Your task to perform on an android device: Open Android settings Image 0: 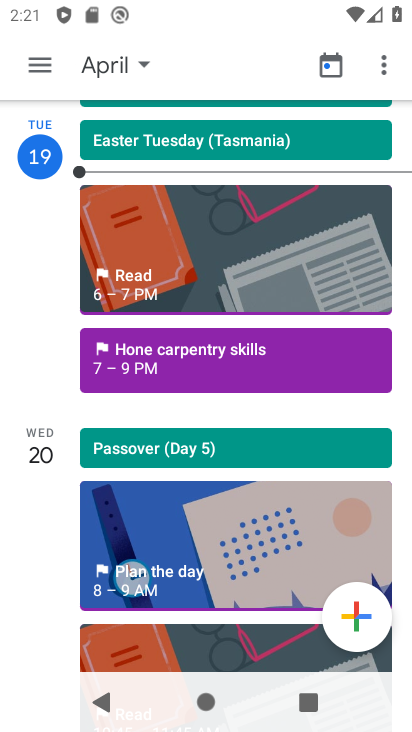
Step 0: press home button
Your task to perform on an android device: Open Android settings Image 1: 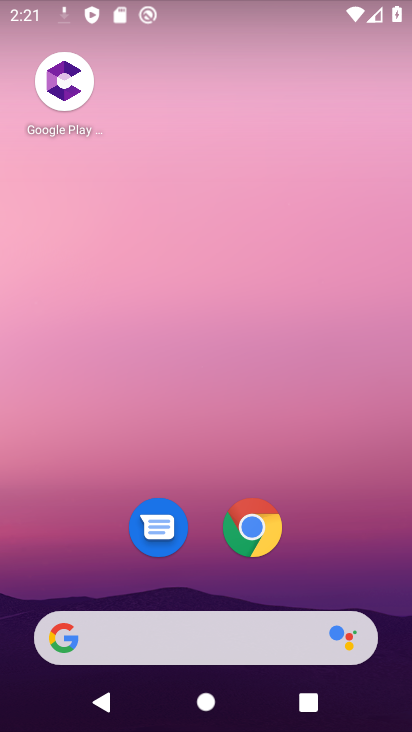
Step 1: drag from (306, 537) to (266, 40)
Your task to perform on an android device: Open Android settings Image 2: 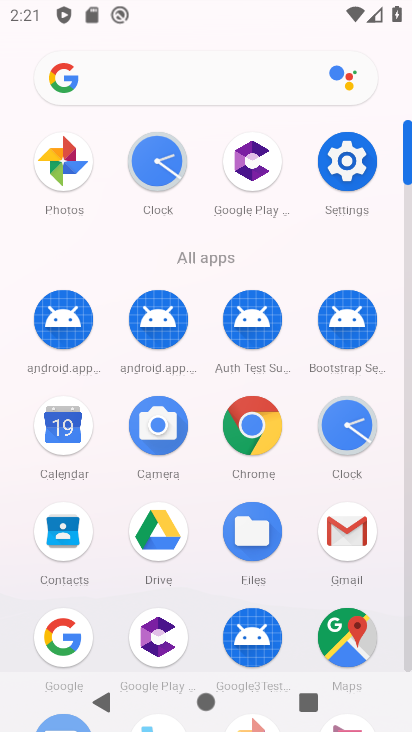
Step 2: click (353, 162)
Your task to perform on an android device: Open Android settings Image 3: 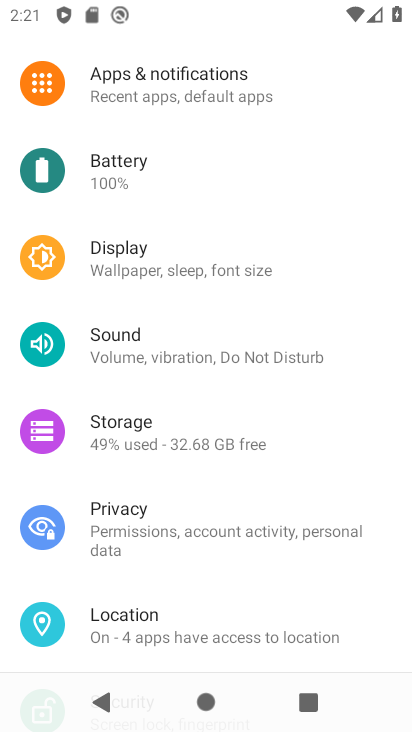
Step 3: drag from (190, 630) to (255, 473)
Your task to perform on an android device: Open Android settings Image 4: 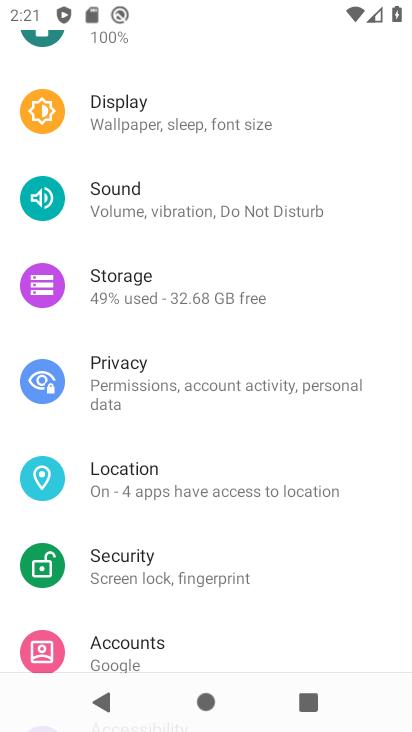
Step 4: drag from (184, 626) to (201, 465)
Your task to perform on an android device: Open Android settings Image 5: 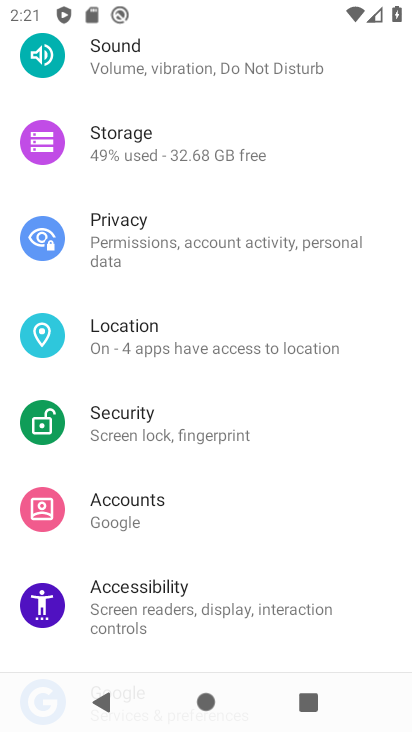
Step 5: drag from (147, 611) to (203, 460)
Your task to perform on an android device: Open Android settings Image 6: 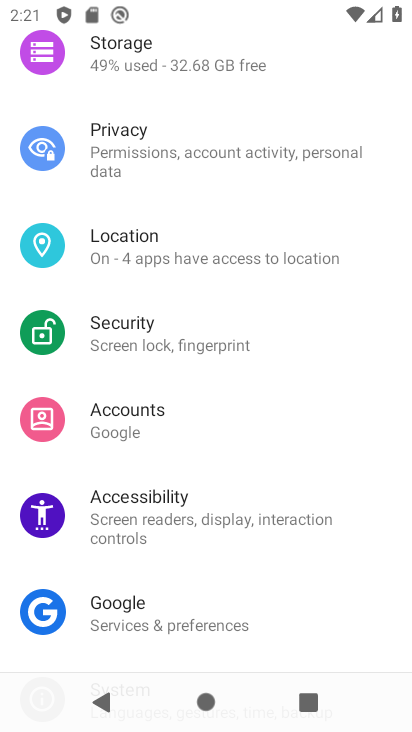
Step 6: drag from (182, 658) to (230, 543)
Your task to perform on an android device: Open Android settings Image 7: 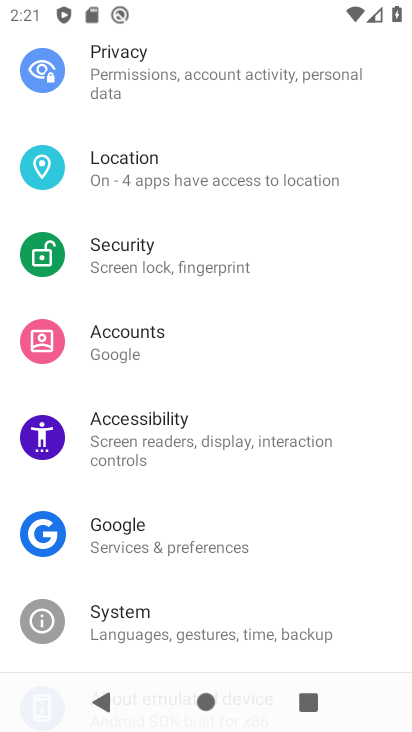
Step 7: click (148, 635)
Your task to perform on an android device: Open Android settings Image 8: 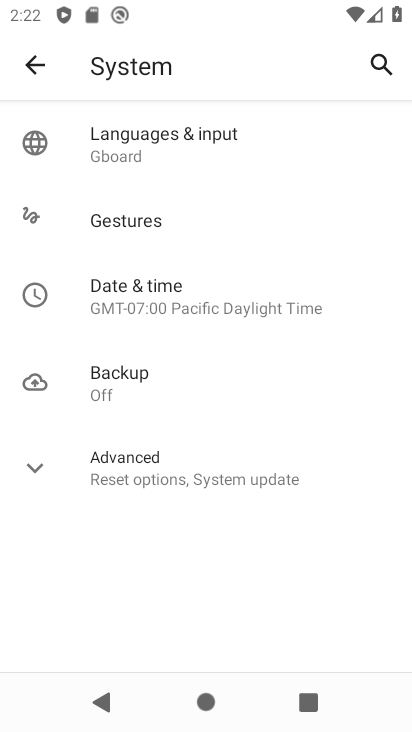
Step 8: task complete